Your task to perform on an android device: empty trash in google photos Image 0: 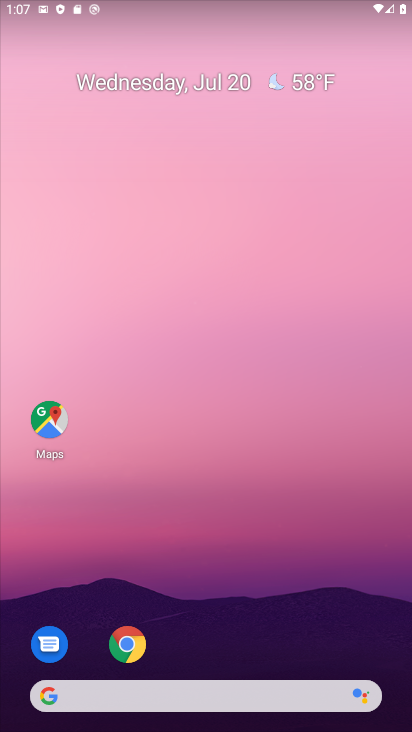
Step 0: drag from (171, 606) to (149, 65)
Your task to perform on an android device: empty trash in google photos Image 1: 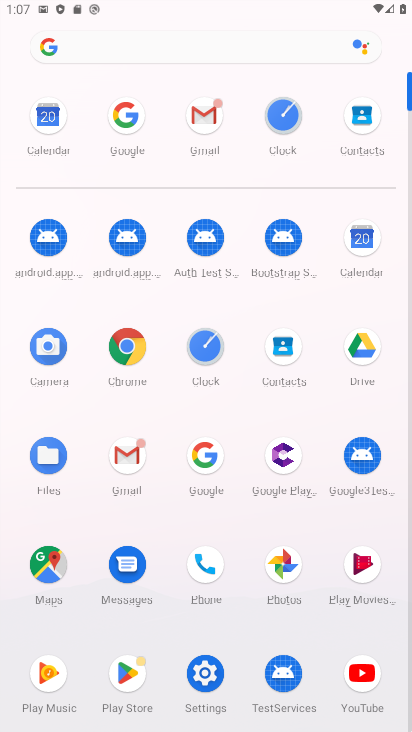
Step 1: click (289, 564)
Your task to perform on an android device: empty trash in google photos Image 2: 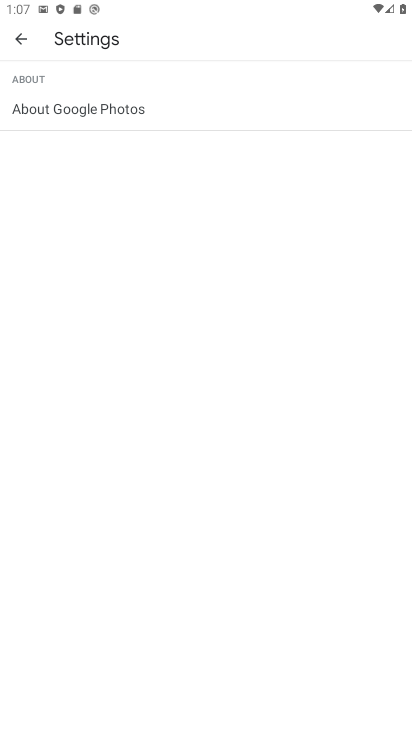
Step 2: press back button
Your task to perform on an android device: empty trash in google photos Image 3: 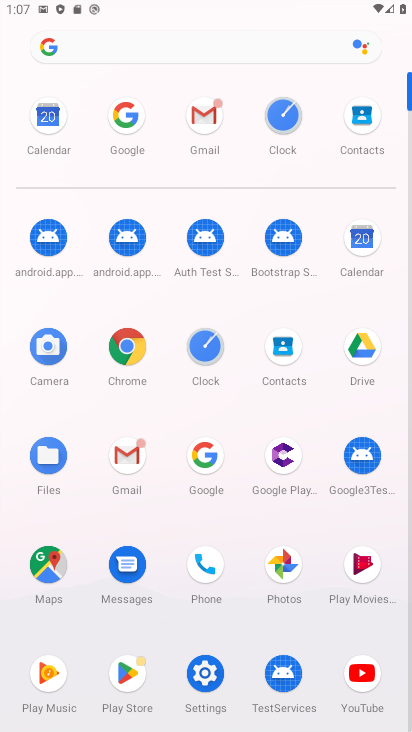
Step 3: click (287, 562)
Your task to perform on an android device: empty trash in google photos Image 4: 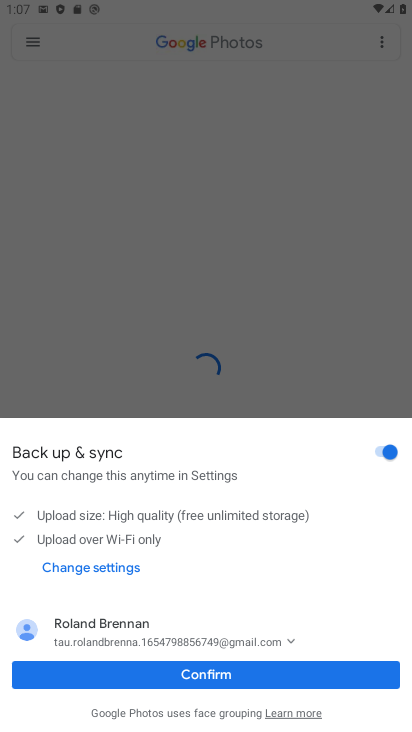
Step 4: click (190, 675)
Your task to perform on an android device: empty trash in google photos Image 5: 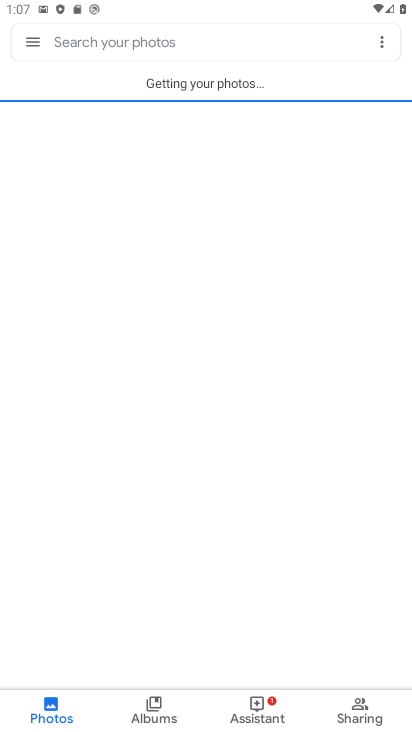
Step 5: click (32, 43)
Your task to perform on an android device: empty trash in google photos Image 6: 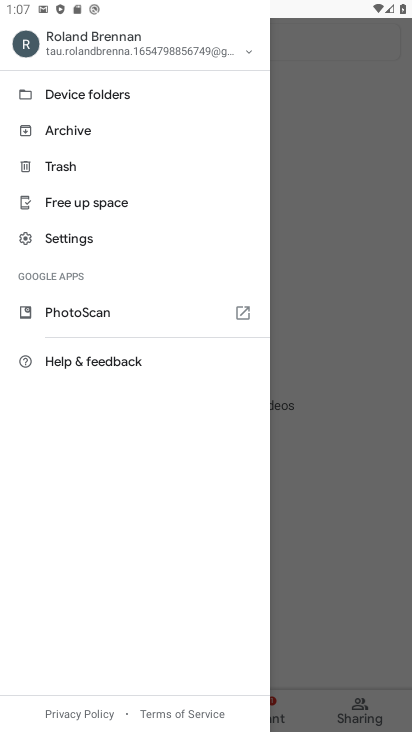
Step 6: click (64, 166)
Your task to perform on an android device: empty trash in google photos Image 7: 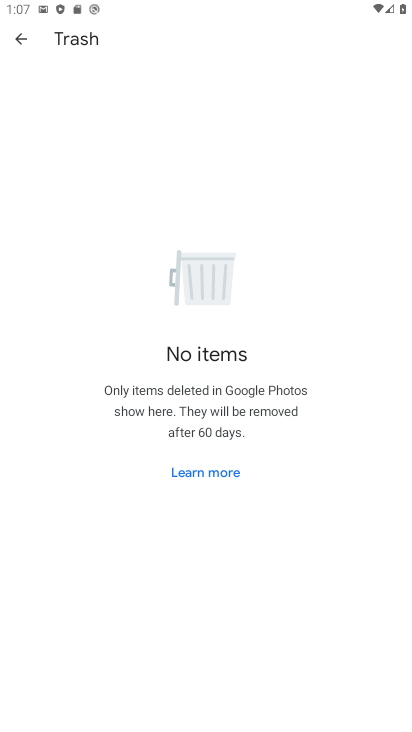
Step 7: task complete